Your task to perform on an android device: toggle sleep mode Image 0: 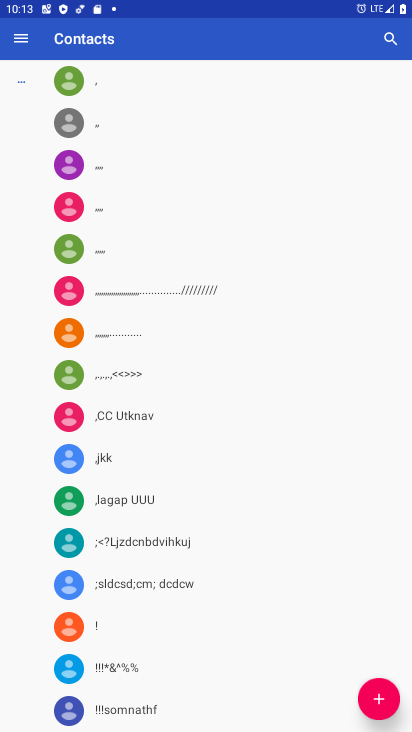
Step 0: press home button
Your task to perform on an android device: toggle sleep mode Image 1: 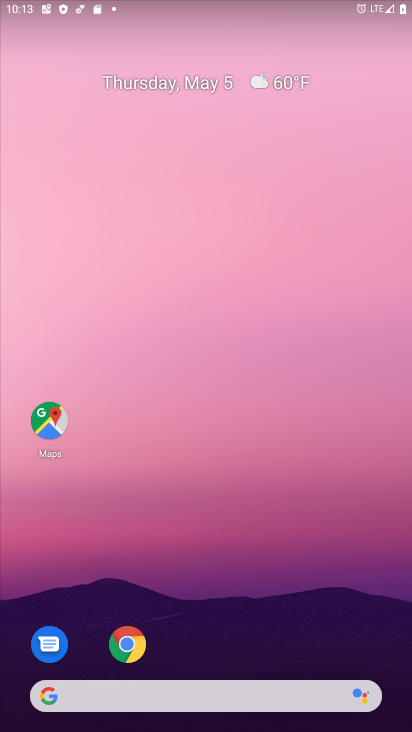
Step 1: drag from (268, 546) to (322, 217)
Your task to perform on an android device: toggle sleep mode Image 2: 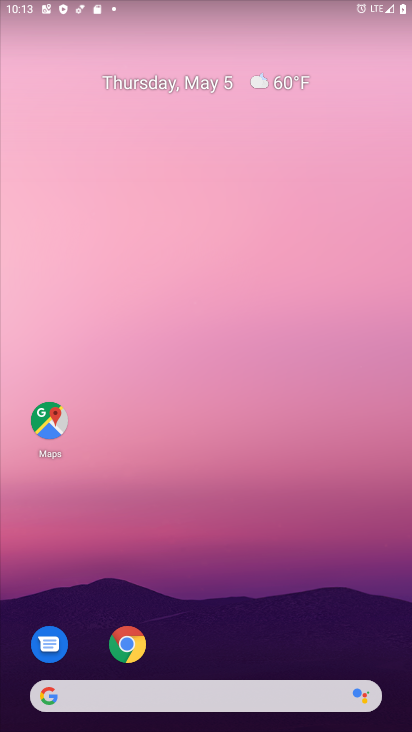
Step 2: drag from (318, 513) to (345, 292)
Your task to perform on an android device: toggle sleep mode Image 3: 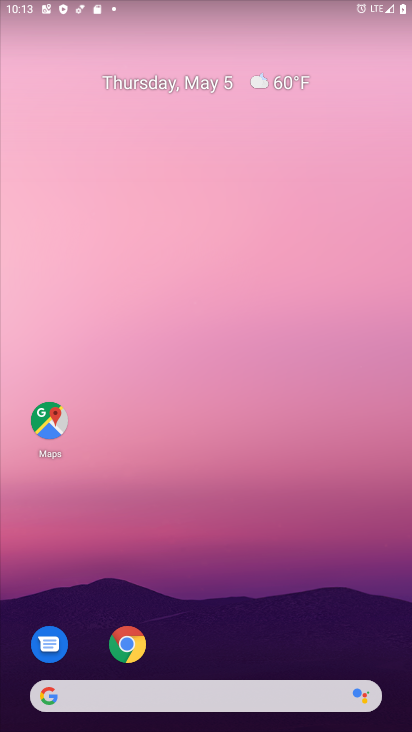
Step 3: drag from (255, 657) to (326, 281)
Your task to perform on an android device: toggle sleep mode Image 4: 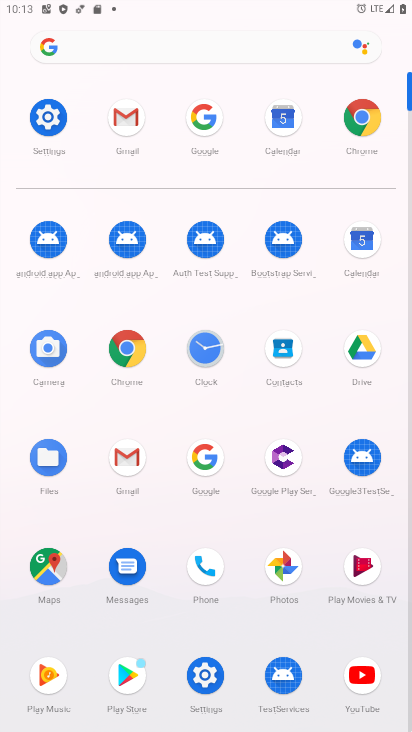
Step 4: click (59, 114)
Your task to perform on an android device: toggle sleep mode Image 5: 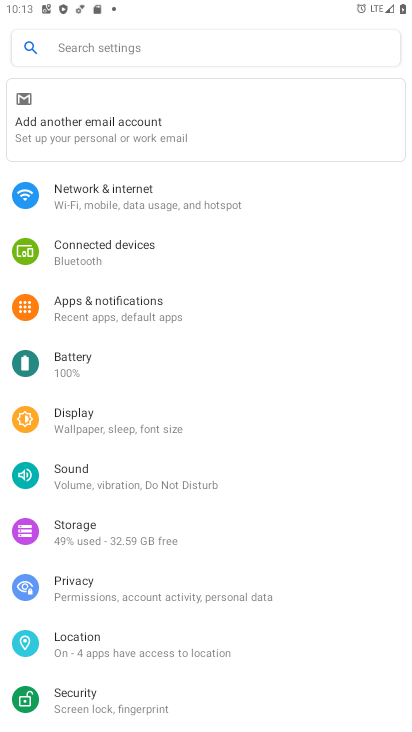
Step 5: click (140, 433)
Your task to perform on an android device: toggle sleep mode Image 6: 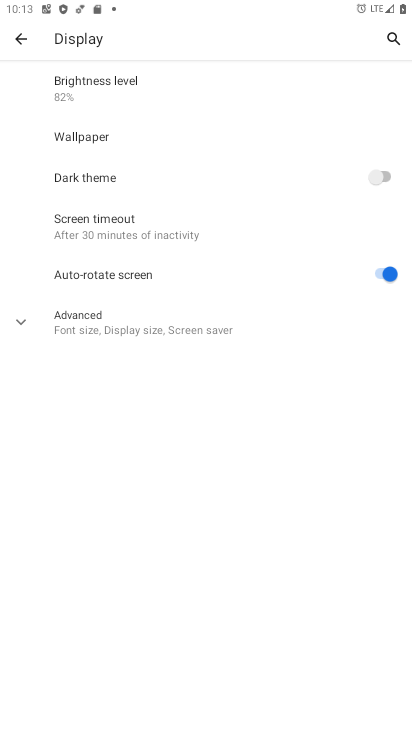
Step 6: click (18, 314)
Your task to perform on an android device: toggle sleep mode Image 7: 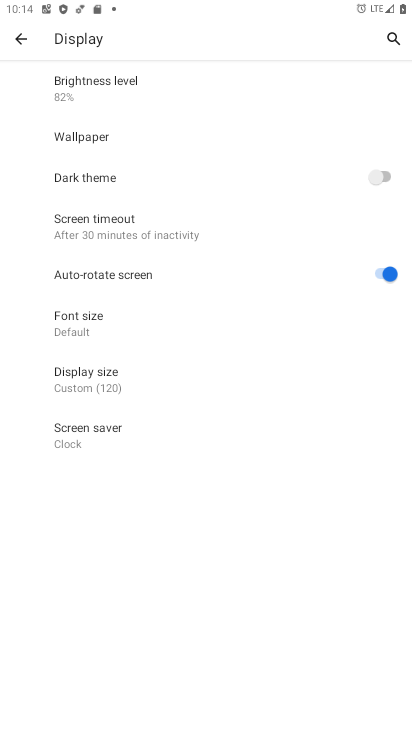
Step 7: task complete